Your task to perform on an android device: toggle location history Image 0: 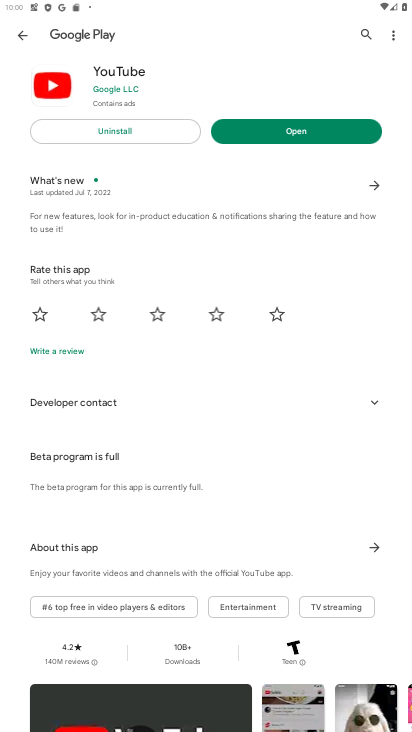
Step 0: press home button
Your task to perform on an android device: toggle location history Image 1: 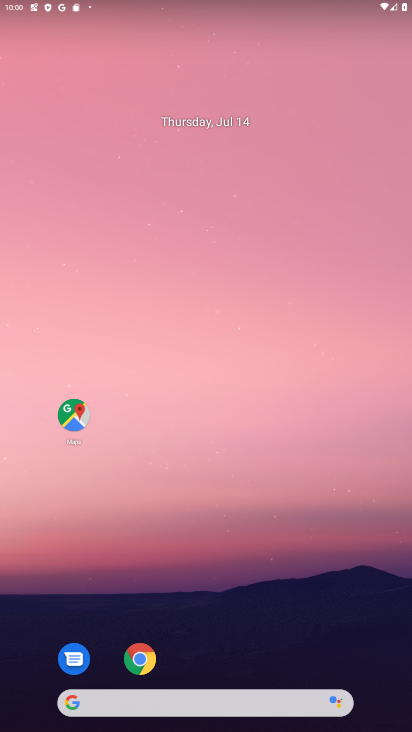
Step 1: drag from (334, 611) to (286, 174)
Your task to perform on an android device: toggle location history Image 2: 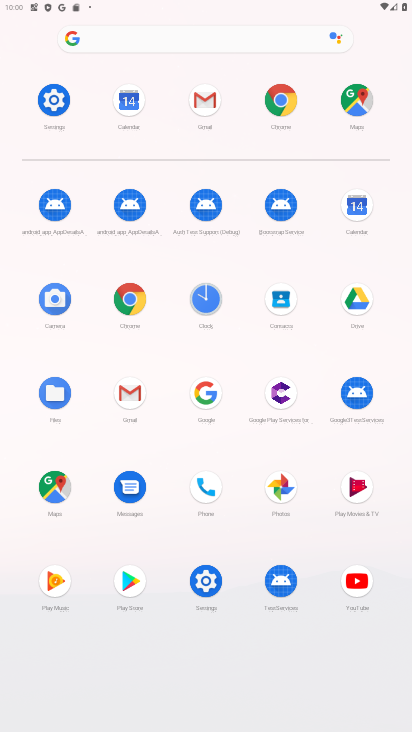
Step 2: click (49, 102)
Your task to perform on an android device: toggle location history Image 3: 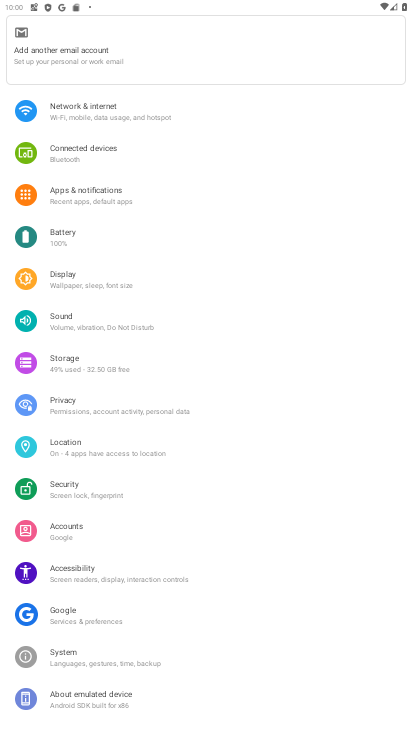
Step 3: click (117, 454)
Your task to perform on an android device: toggle location history Image 4: 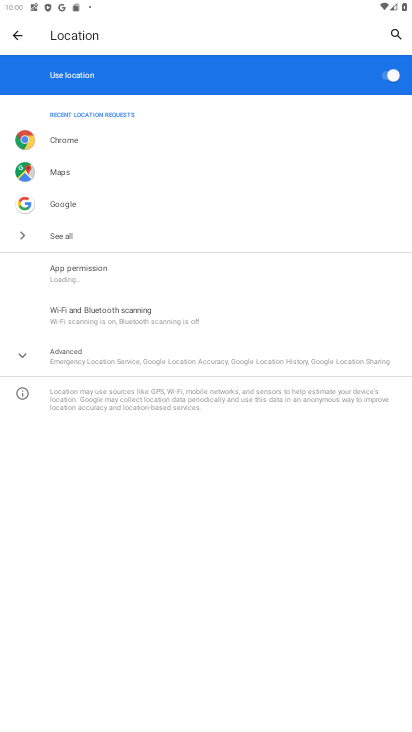
Step 4: click (104, 368)
Your task to perform on an android device: toggle location history Image 5: 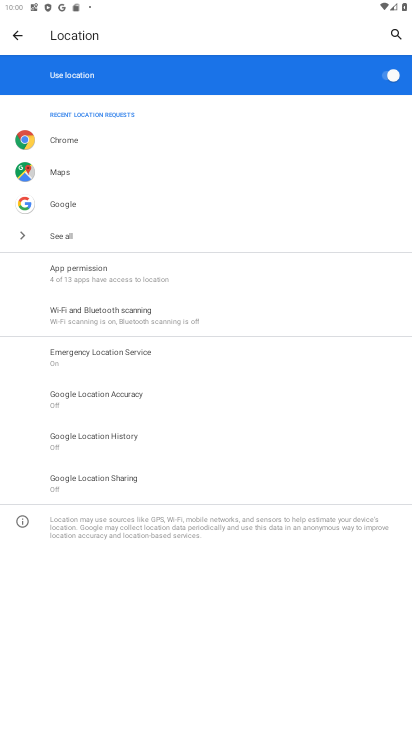
Step 5: click (115, 437)
Your task to perform on an android device: toggle location history Image 6: 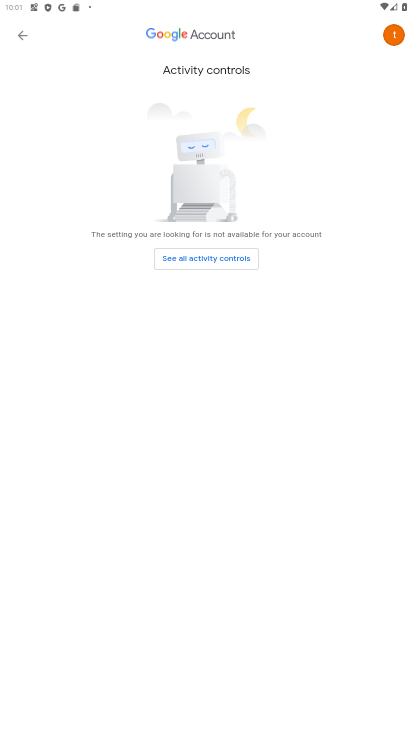
Step 6: task complete